Your task to perform on an android device: Go to Maps Image 0: 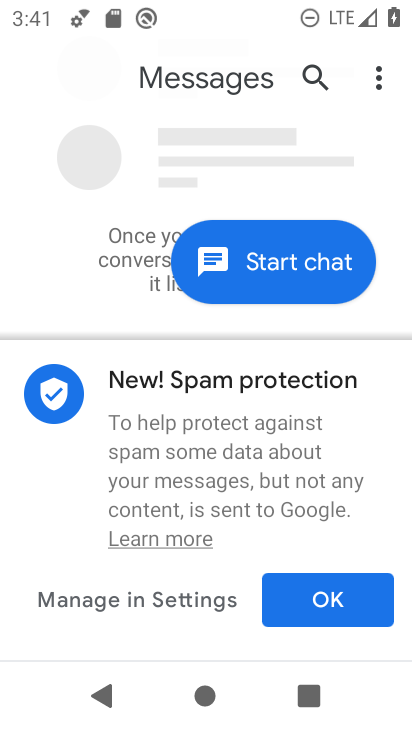
Step 0: press home button
Your task to perform on an android device: Go to Maps Image 1: 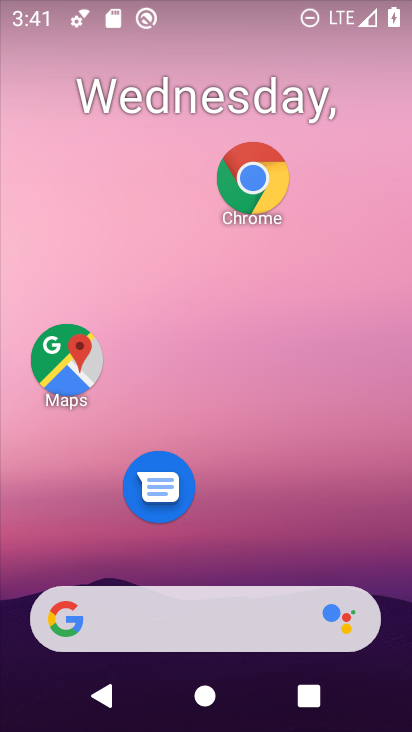
Step 1: click (64, 355)
Your task to perform on an android device: Go to Maps Image 2: 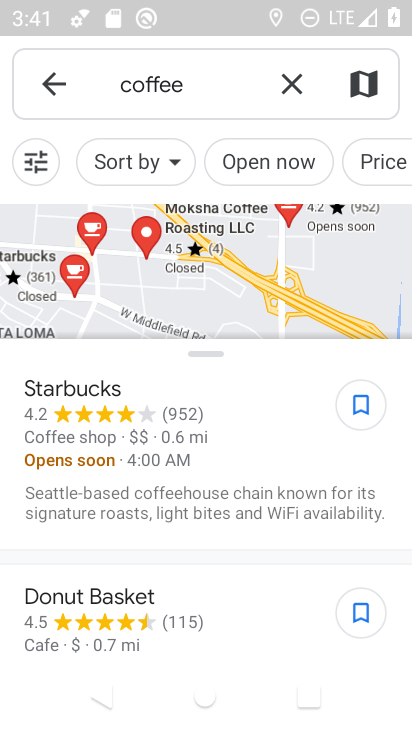
Step 2: task complete